Your task to perform on an android device: Search for "amazon basics triple a" on newegg, select the first entry, and add it to the cart. Image 0: 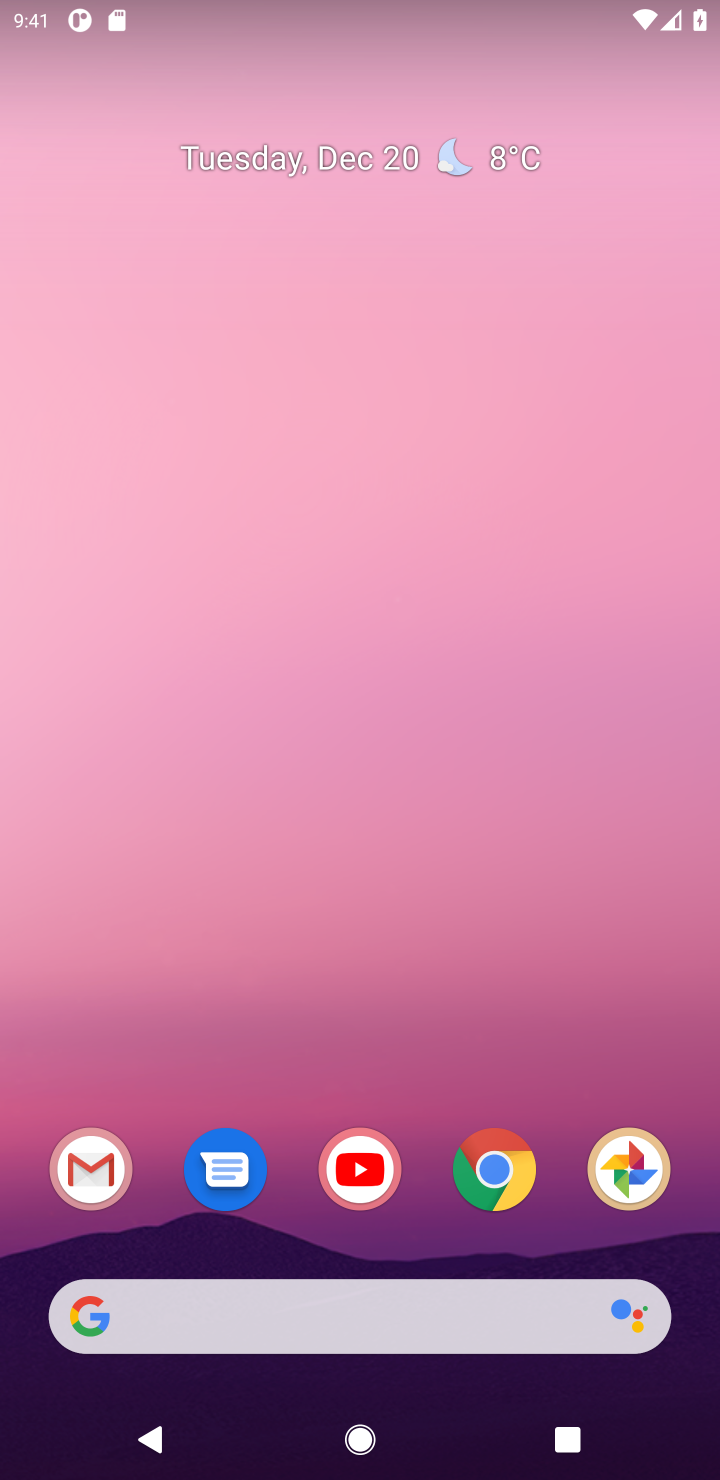
Step 0: click (422, 1311)
Your task to perform on an android device: Search for "amazon basics triple a" on newegg, select the first entry, and add it to the cart. Image 1: 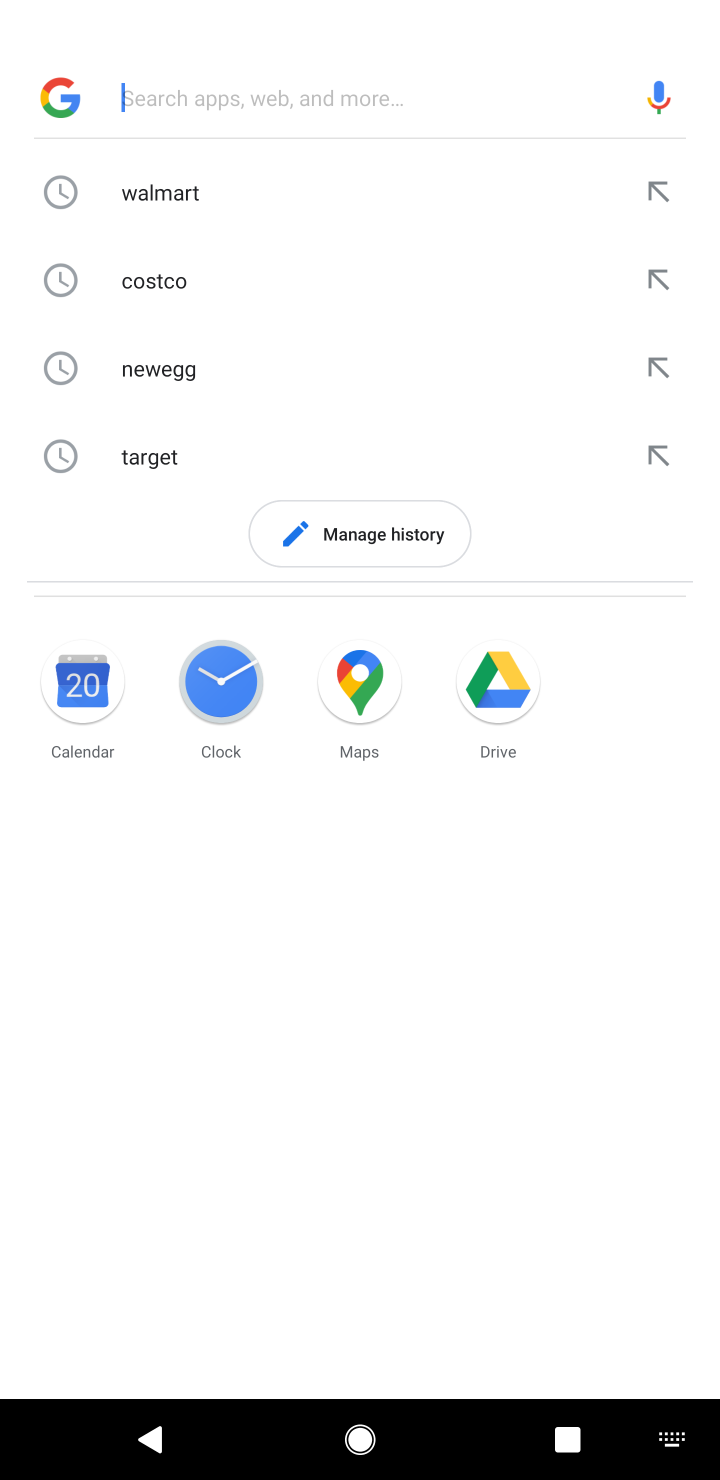
Step 1: type "amazon"
Your task to perform on an android device: Search for "amazon basics triple a" on newegg, select the first entry, and add it to the cart. Image 2: 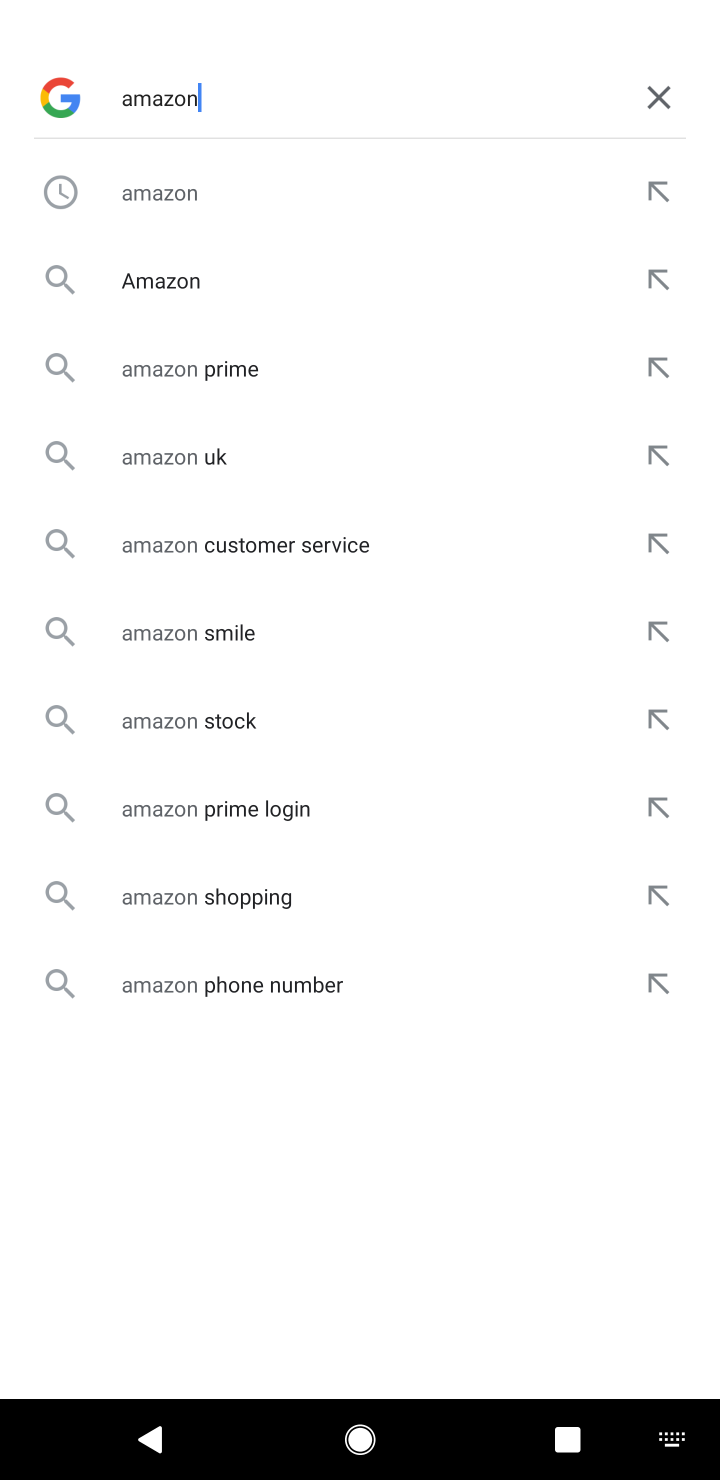
Step 2: click (242, 205)
Your task to perform on an android device: Search for "amazon basics triple a" on newegg, select the first entry, and add it to the cart. Image 3: 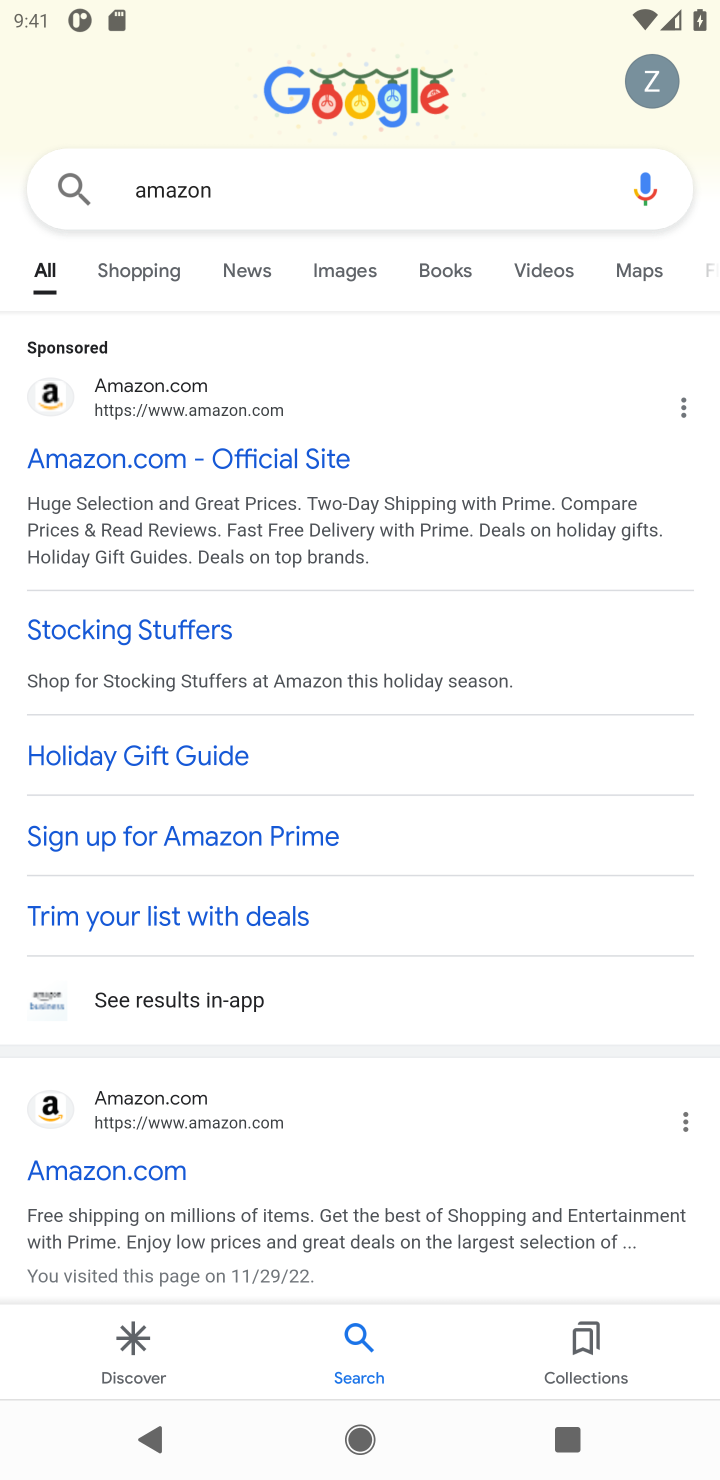
Step 3: click (272, 476)
Your task to perform on an android device: Search for "amazon basics triple a" on newegg, select the first entry, and add it to the cart. Image 4: 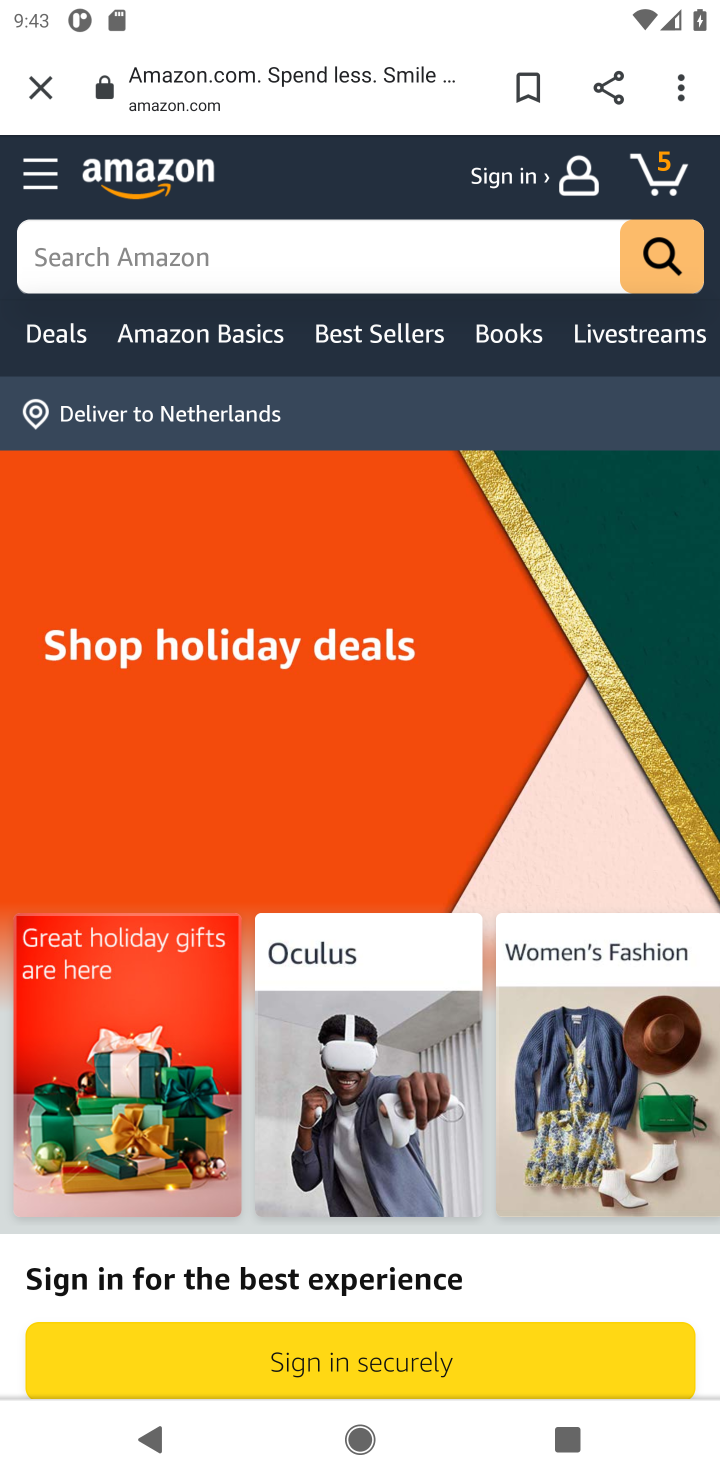
Step 4: task complete